Your task to perform on an android device: Open settings Image 0: 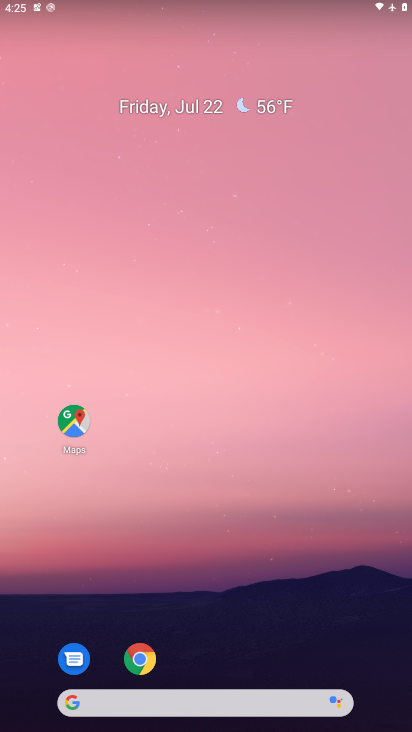
Step 0: drag from (233, 683) to (310, 139)
Your task to perform on an android device: Open settings Image 1: 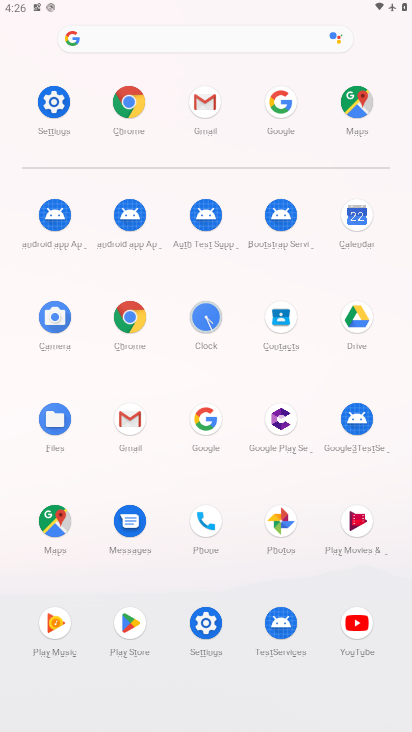
Step 1: click (44, 102)
Your task to perform on an android device: Open settings Image 2: 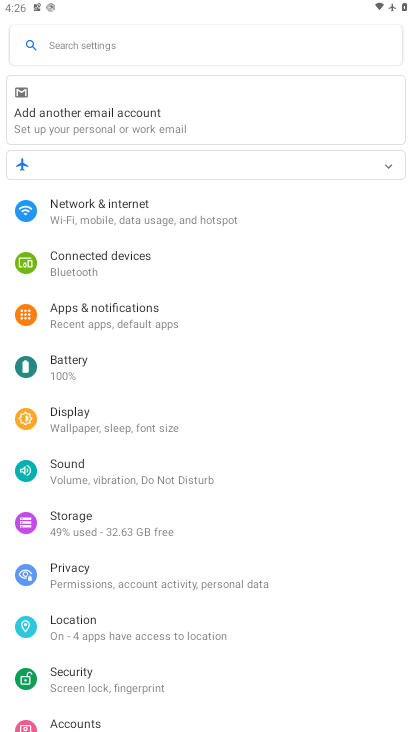
Step 2: task complete